Your task to perform on an android device: toggle airplane mode Image 0: 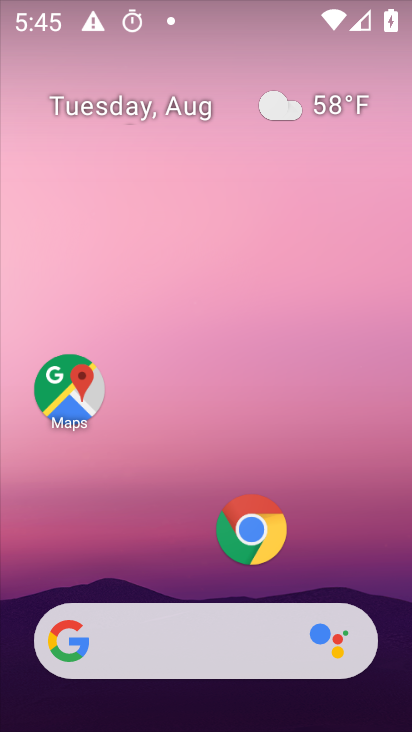
Step 0: drag from (204, 282) to (216, 167)
Your task to perform on an android device: toggle airplane mode Image 1: 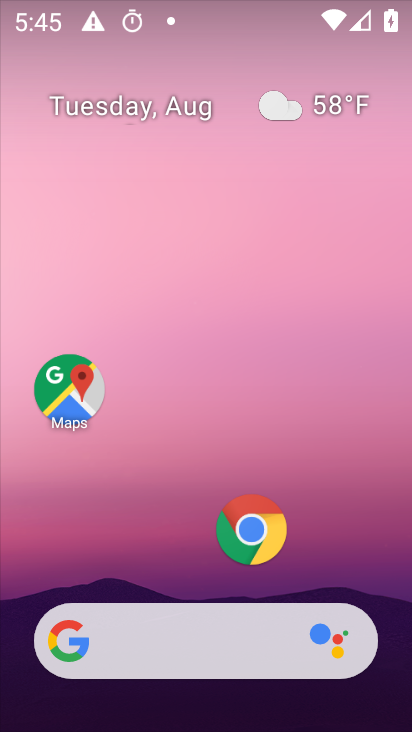
Step 1: drag from (177, 544) to (185, 194)
Your task to perform on an android device: toggle airplane mode Image 2: 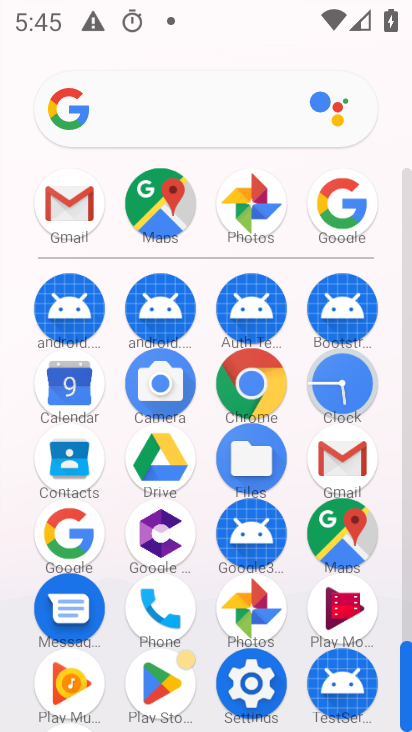
Step 2: click (251, 676)
Your task to perform on an android device: toggle airplane mode Image 3: 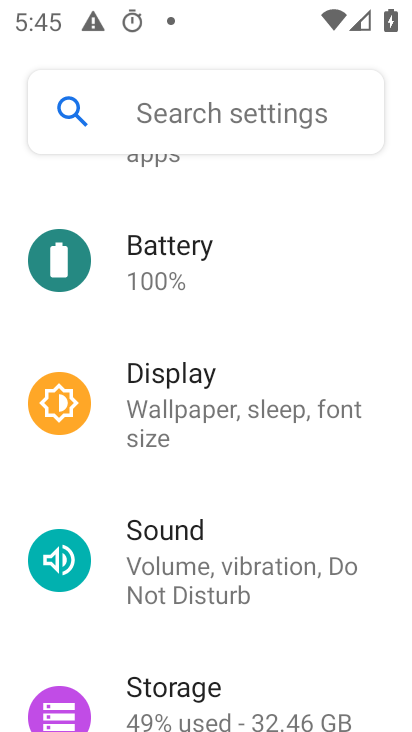
Step 3: drag from (229, 304) to (205, 595)
Your task to perform on an android device: toggle airplane mode Image 4: 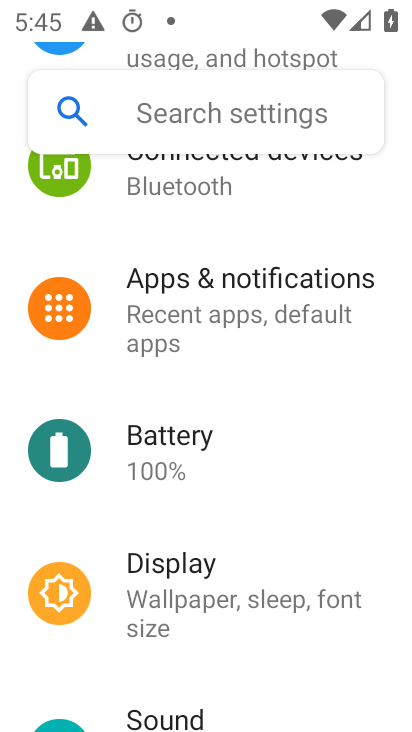
Step 4: click (235, 561)
Your task to perform on an android device: toggle airplane mode Image 5: 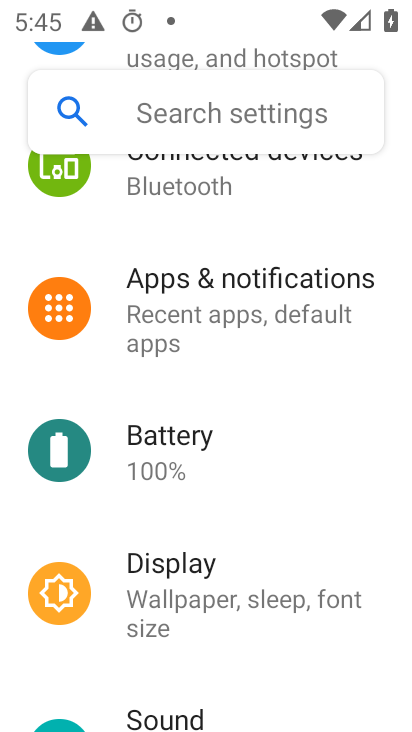
Step 5: drag from (260, 347) to (260, 629)
Your task to perform on an android device: toggle airplane mode Image 6: 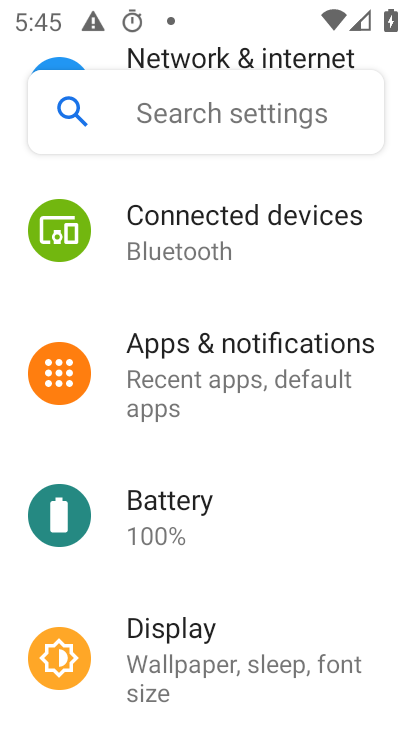
Step 6: drag from (252, 226) to (252, 516)
Your task to perform on an android device: toggle airplane mode Image 7: 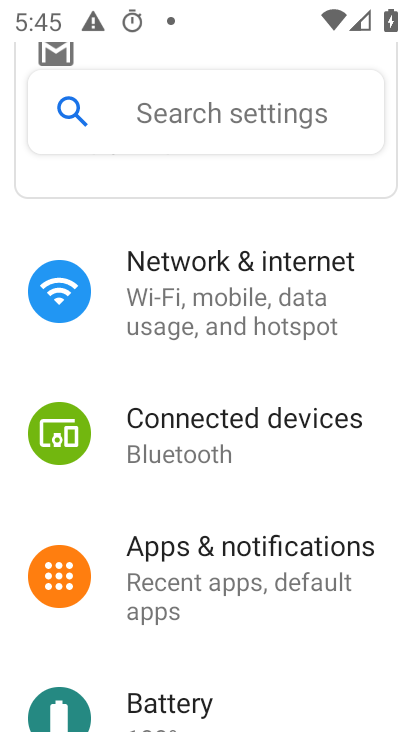
Step 7: click (216, 310)
Your task to perform on an android device: toggle airplane mode Image 8: 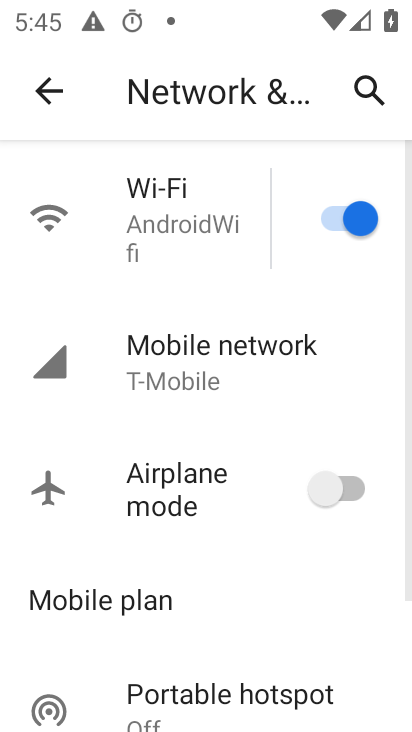
Step 8: click (341, 495)
Your task to perform on an android device: toggle airplane mode Image 9: 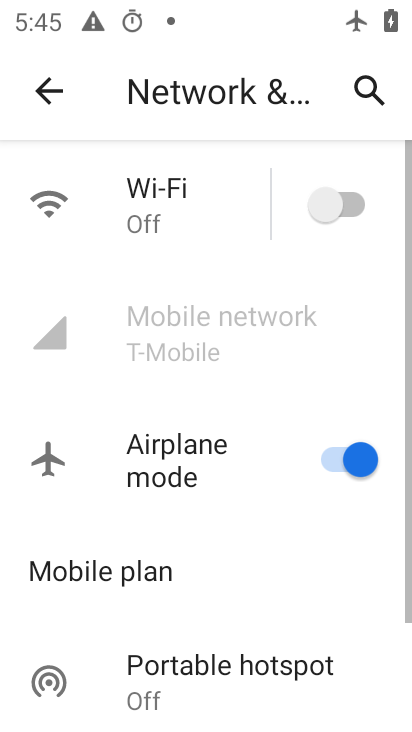
Step 9: task complete